Your task to perform on an android device: empty trash in the gmail app Image 0: 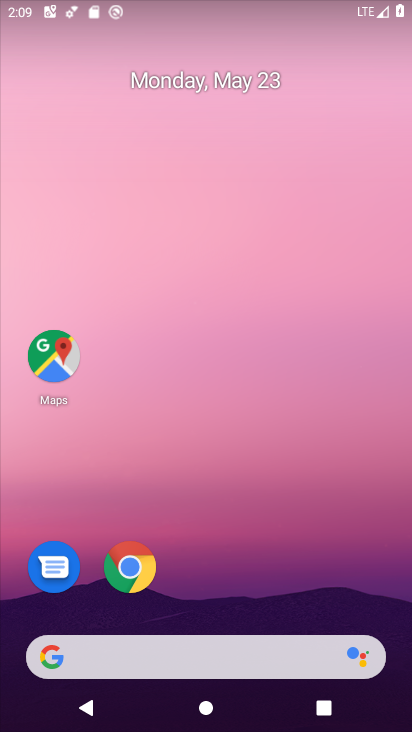
Step 0: drag from (267, 543) to (261, 175)
Your task to perform on an android device: empty trash in the gmail app Image 1: 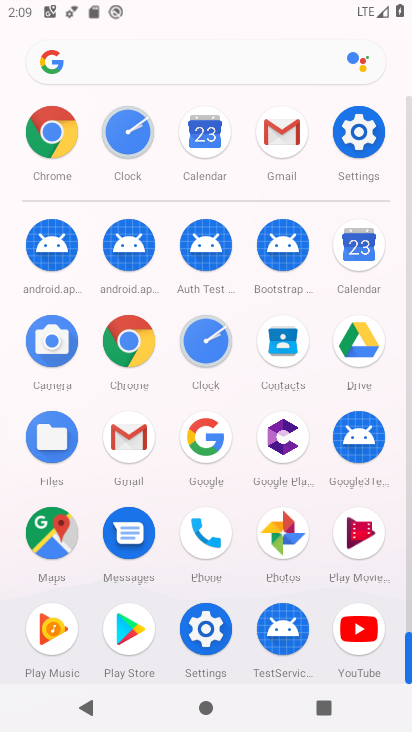
Step 1: click (129, 442)
Your task to perform on an android device: empty trash in the gmail app Image 2: 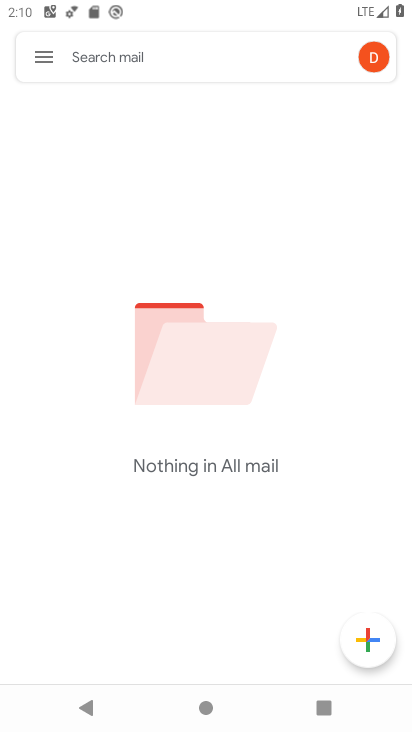
Step 2: click (49, 62)
Your task to perform on an android device: empty trash in the gmail app Image 3: 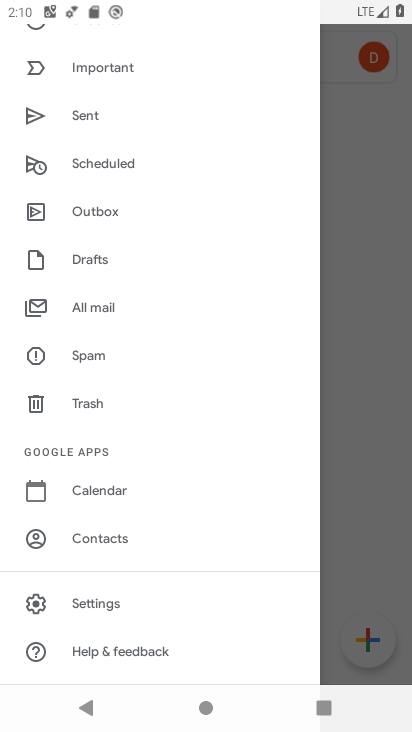
Step 3: click (147, 399)
Your task to perform on an android device: empty trash in the gmail app Image 4: 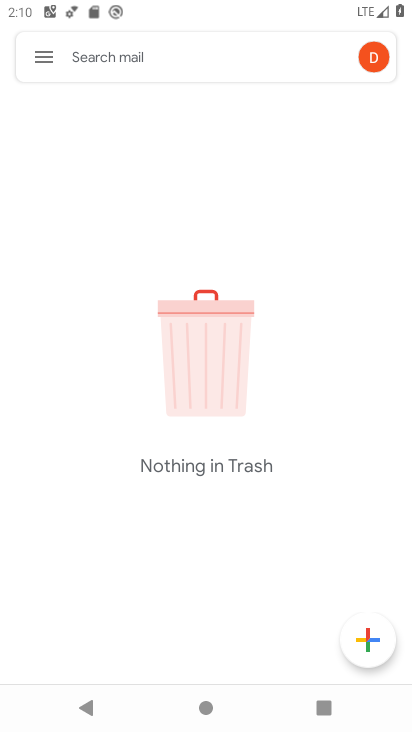
Step 4: task complete